Your task to perform on an android device: Search for Mexican restaurants on Maps Image 0: 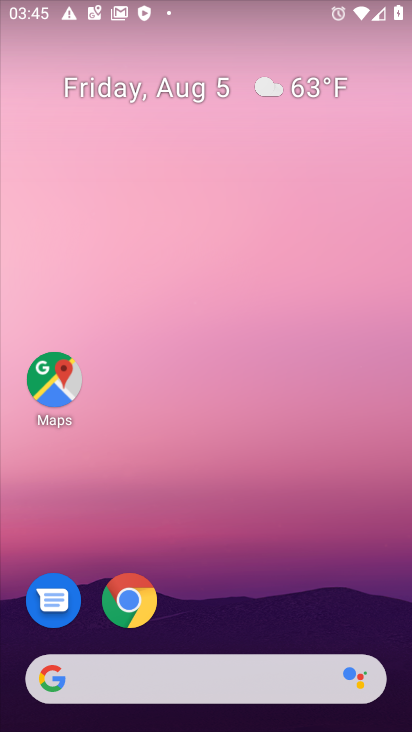
Step 0: click (54, 382)
Your task to perform on an android device: Search for Mexican restaurants on Maps Image 1: 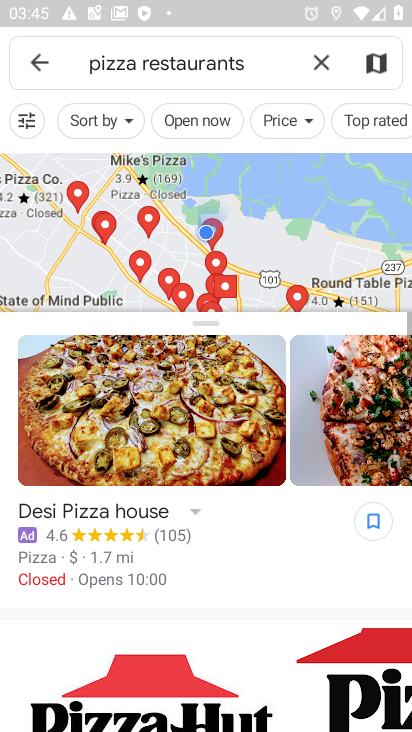
Step 1: click (322, 66)
Your task to perform on an android device: Search for Mexican restaurants on Maps Image 2: 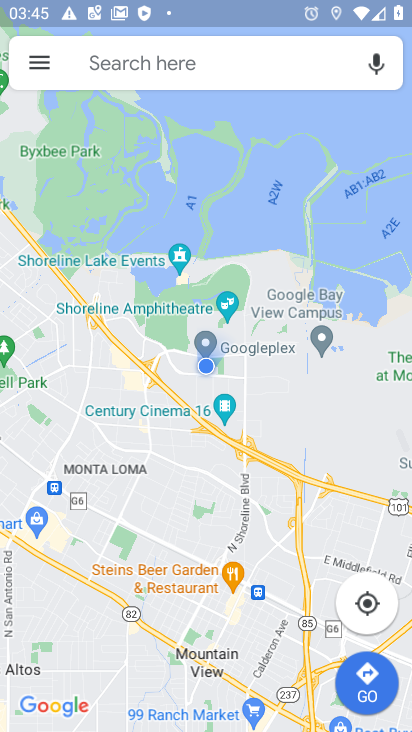
Step 2: type "Mexican restaurants"
Your task to perform on an android device: Search for Mexican restaurants on Maps Image 3: 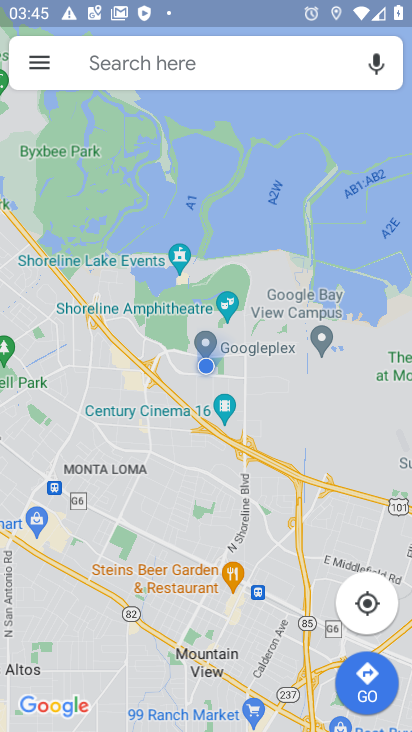
Step 3: click (176, 62)
Your task to perform on an android device: Search for Mexican restaurants on Maps Image 4: 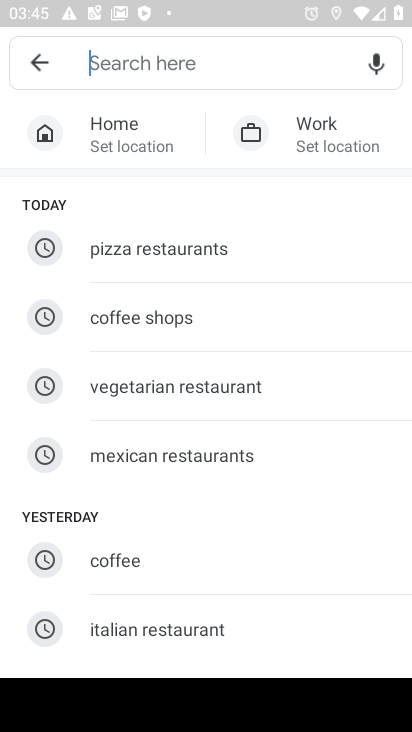
Step 4: click (176, 455)
Your task to perform on an android device: Search for Mexican restaurants on Maps Image 5: 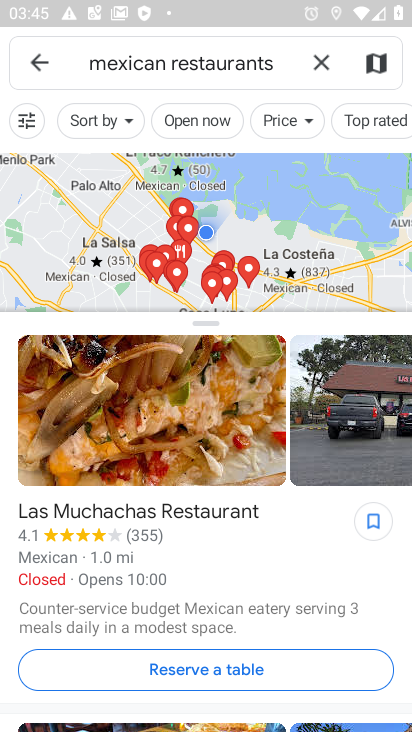
Step 5: task complete